Your task to perform on an android device: Check the weather Image 0: 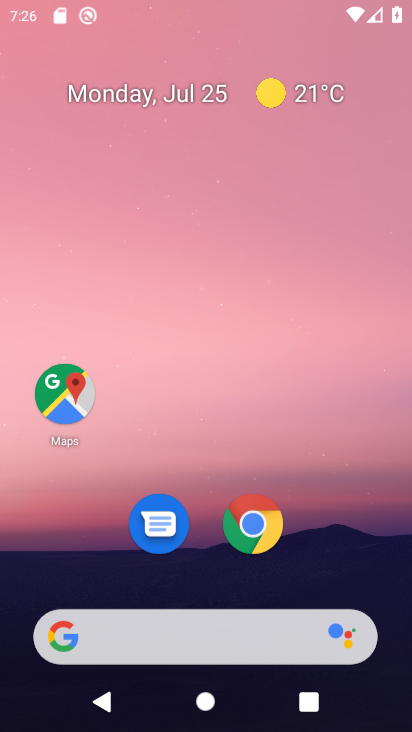
Step 0: drag from (267, 340) to (292, 308)
Your task to perform on an android device: Check the weather Image 1: 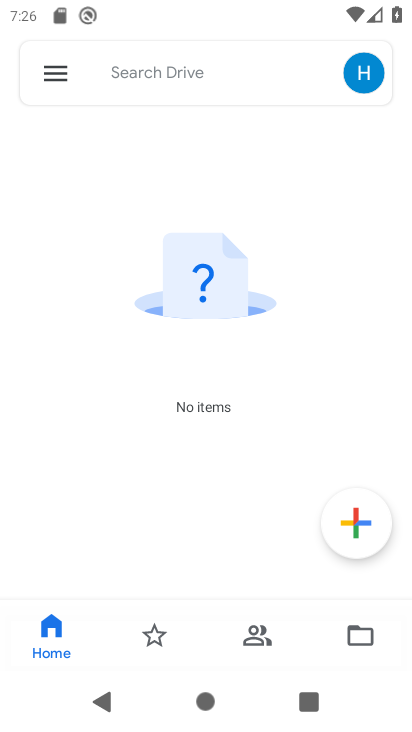
Step 1: press home button
Your task to perform on an android device: Check the weather Image 2: 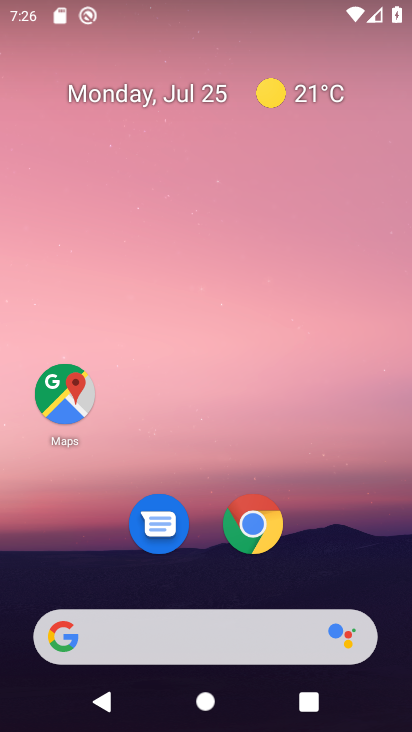
Step 2: click (167, 635)
Your task to perform on an android device: Check the weather Image 3: 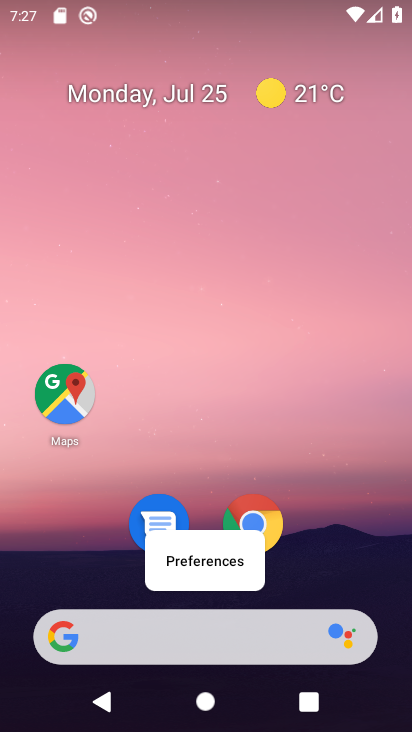
Step 3: click (170, 628)
Your task to perform on an android device: Check the weather Image 4: 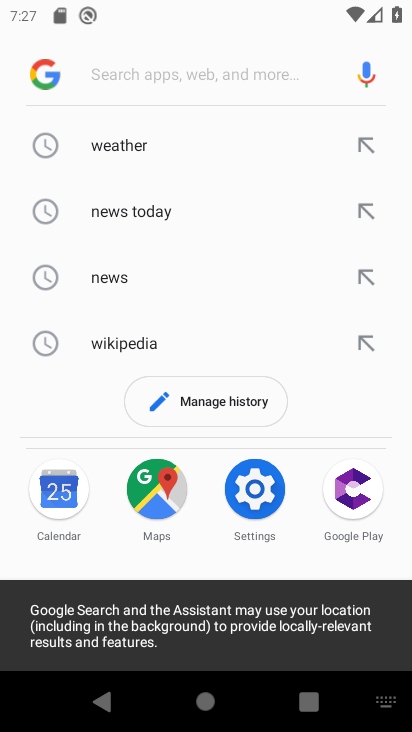
Step 4: click (124, 139)
Your task to perform on an android device: Check the weather Image 5: 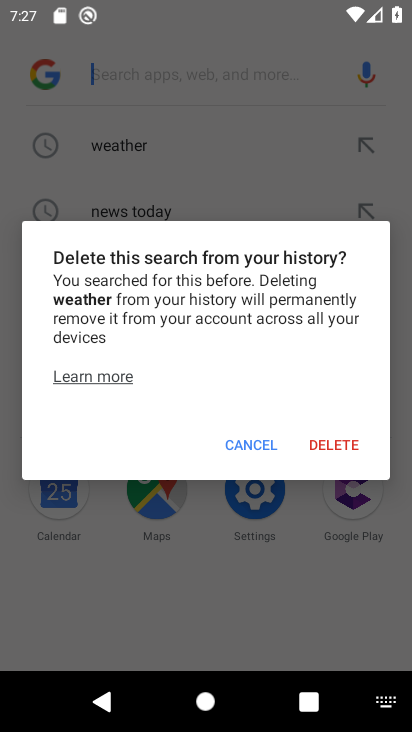
Step 5: click (243, 447)
Your task to perform on an android device: Check the weather Image 6: 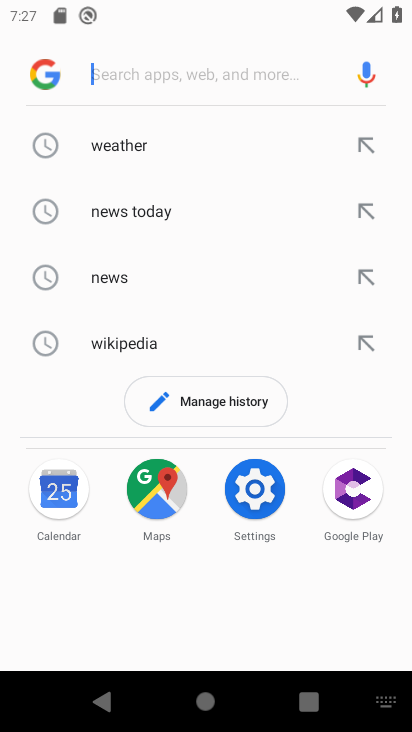
Step 6: click (130, 138)
Your task to perform on an android device: Check the weather Image 7: 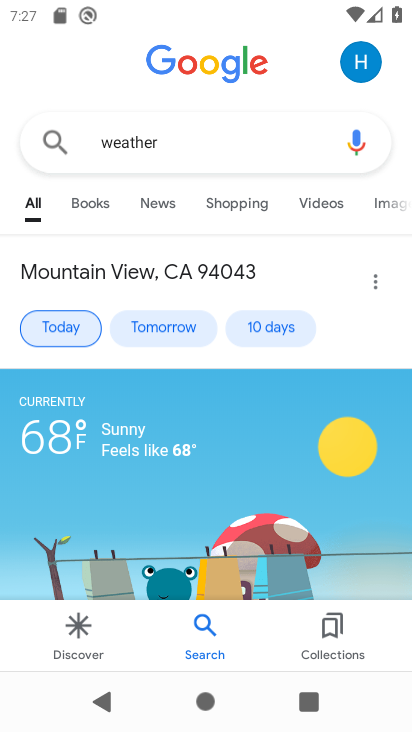
Step 7: task complete